Your task to perform on an android device: Open maps Image 0: 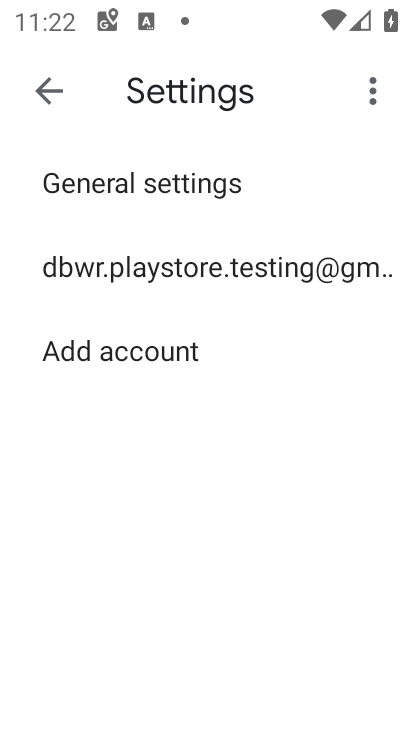
Step 0: press home button
Your task to perform on an android device: Open maps Image 1: 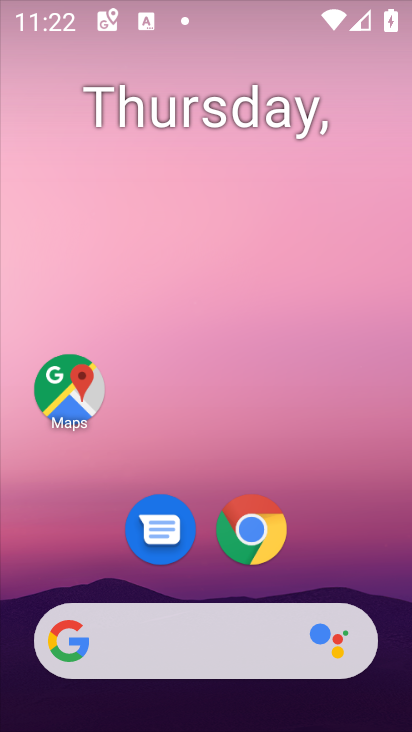
Step 1: drag from (198, 633) to (230, 207)
Your task to perform on an android device: Open maps Image 2: 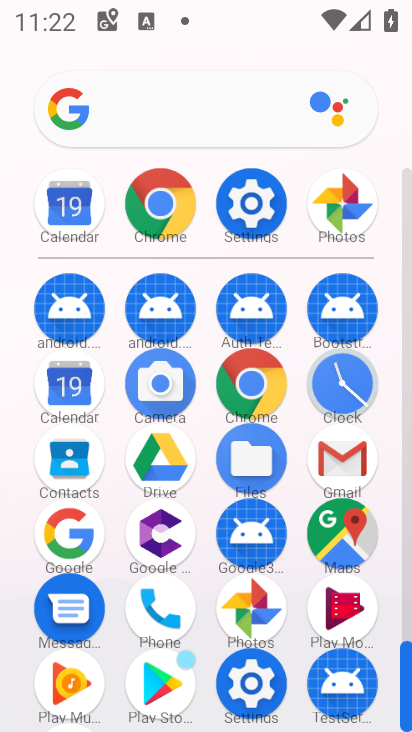
Step 2: click (351, 548)
Your task to perform on an android device: Open maps Image 3: 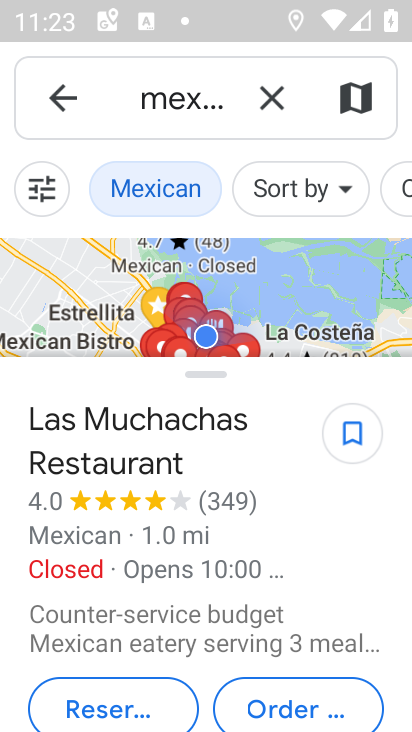
Step 3: task complete